Your task to perform on an android device: Open Android settings Image 0: 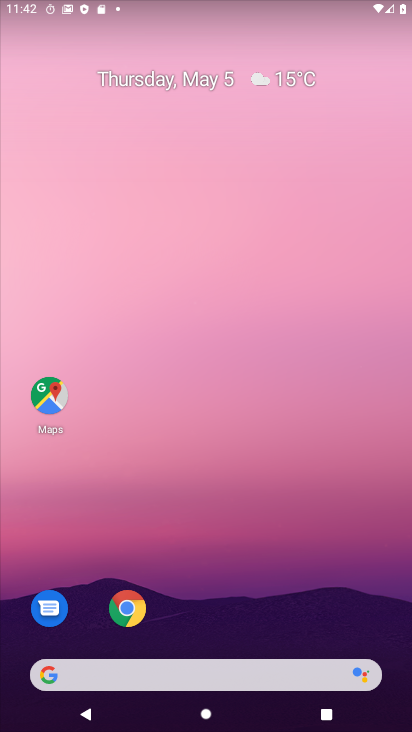
Step 0: drag from (263, 639) to (262, 142)
Your task to perform on an android device: Open Android settings Image 1: 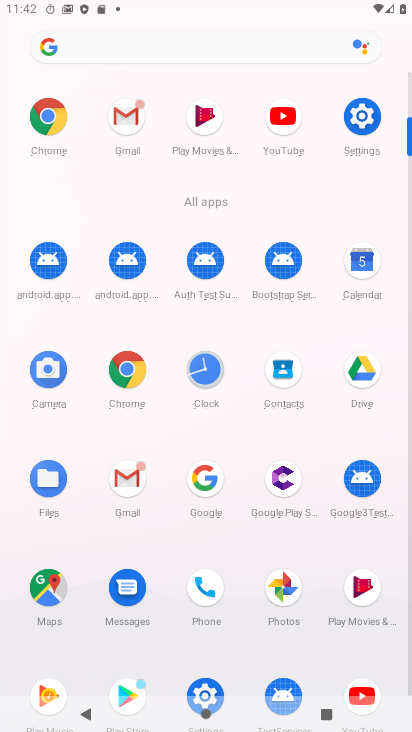
Step 1: click (361, 116)
Your task to perform on an android device: Open Android settings Image 2: 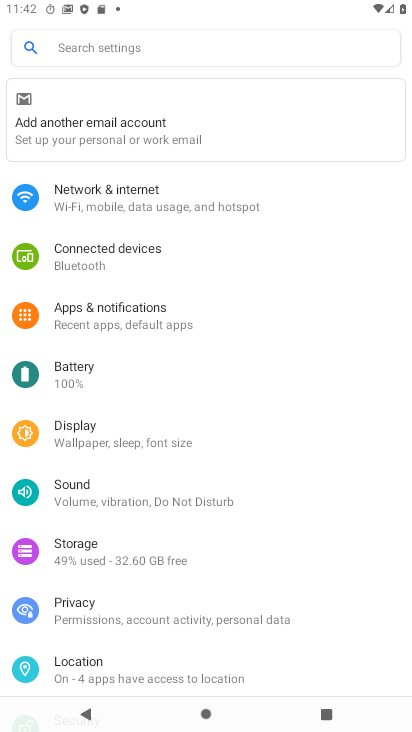
Step 2: task complete